Your task to perform on an android device: Turn on the flashlight Image 0: 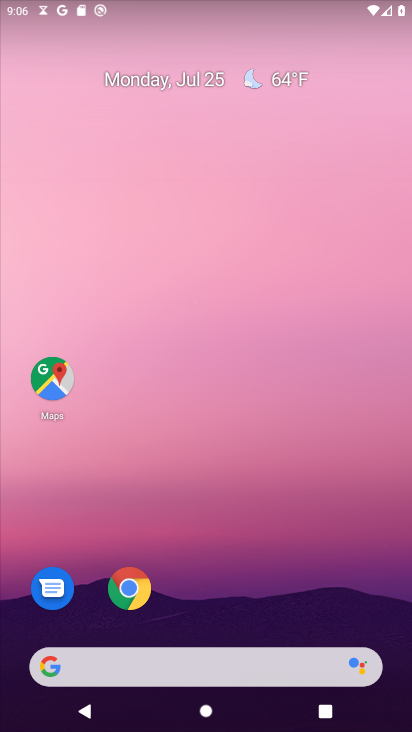
Step 0: drag from (132, 8) to (161, 484)
Your task to perform on an android device: Turn on the flashlight Image 1: 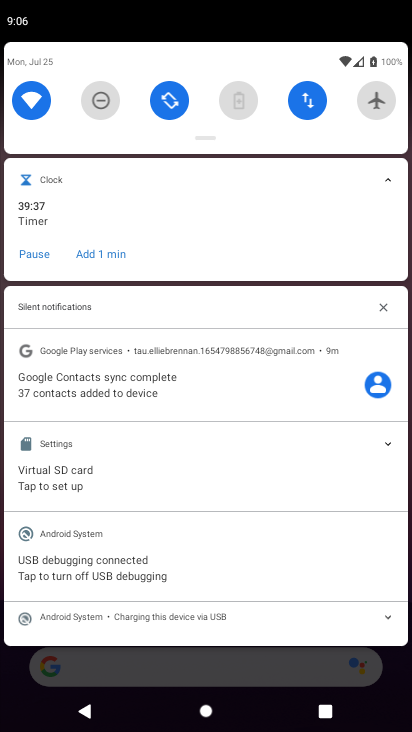
Step 1: task complete